Your task to perform on an android device: read, delete, or share a saved page in the chrome app Image 0: 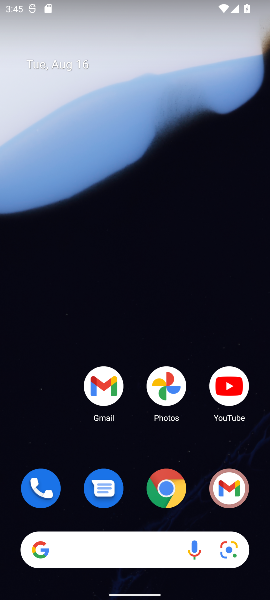
Step 0: click (165, 488)
Your task to perform on an android device: read, delete, or share a saved page in the chrome app Image 1: 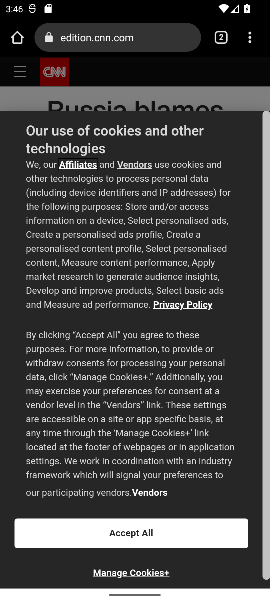
Step 1: press home button
Your task to perform on an android device: read, delete, or share a saved page in the chrome app Image 2: 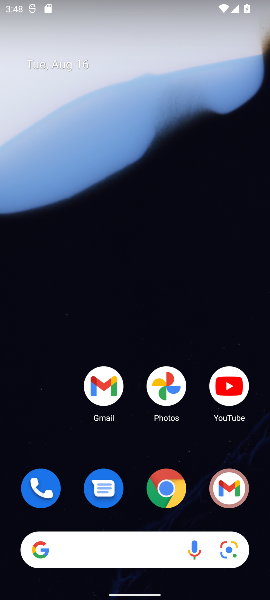
Step 2: click (174, 479)
Your task to perform on an android device: read, delete, or share a saved page in the chrome app Image 3: 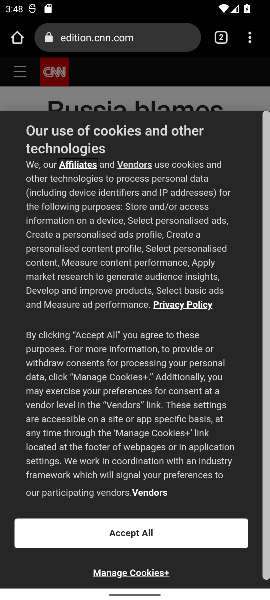
Step 3: task complete